Your task to perform on an android device: set the stopwatch Image 0: 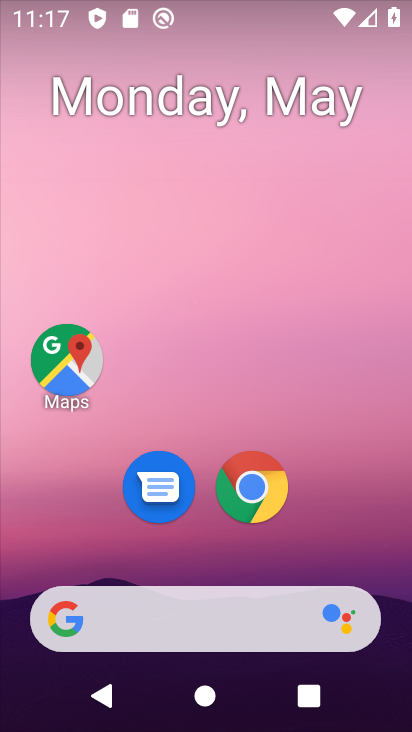
Step 0: drag from (190, 546) to (257, 45)
Your task to perform on an android device: set the stopwatch Image 1: 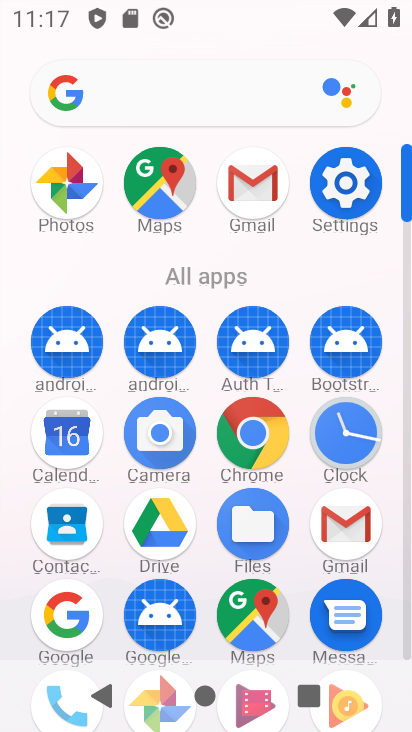
Step 1: click (357, 447)
Your task to perform on an android device: set the stopwatch Image 2: 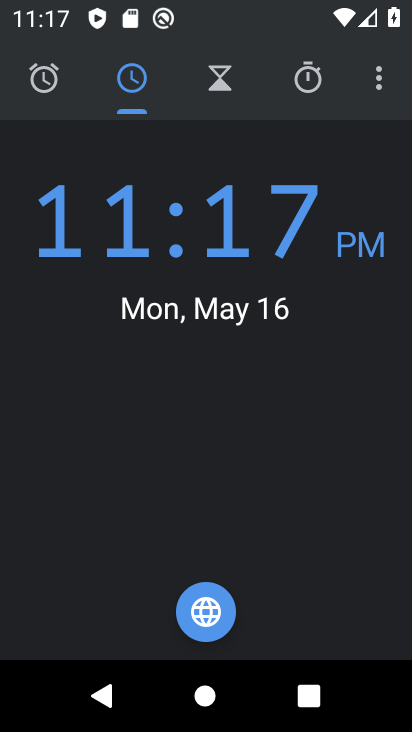
Step 2: click (298, 81)
Your task to perform on an android device: set the stopwatch Image 3: 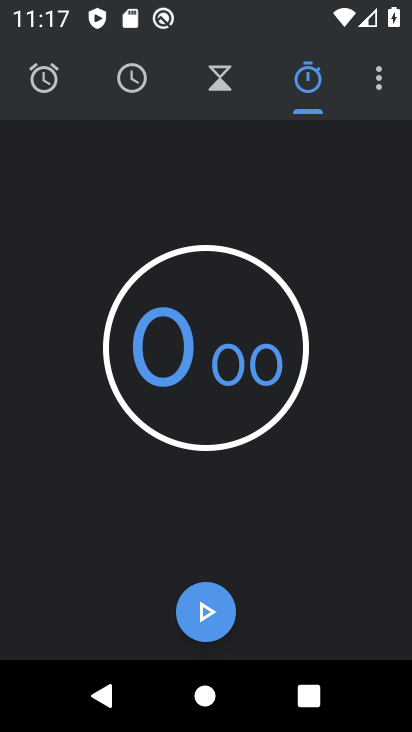
Step 3: task complete